Your task to perform on an android device: Open CNN.com Image 0: 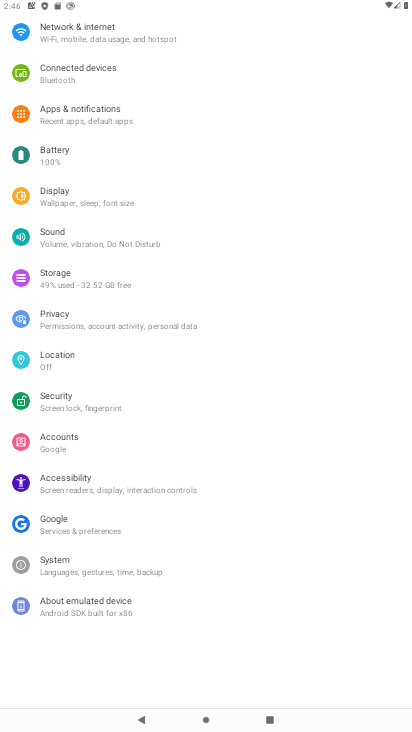
Step 0: drag from (294, 684) to (313, 341)
Your task to perform on an android device: Open CNN.com Image 1: 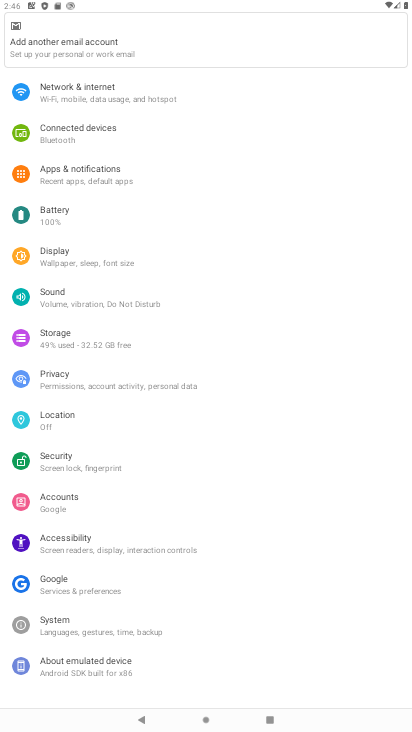
Step 1: press home button
Your task to perform on an android device: Open CNN.com Image 2: 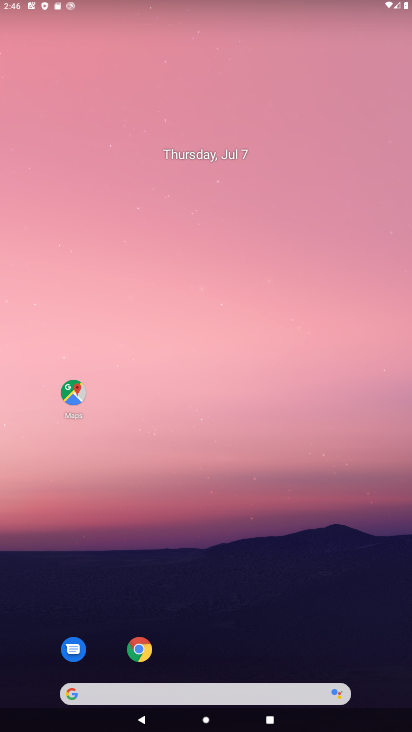
Step 2: drag from (332, 682) to (331, 290)
Your task to perform on an android device: Open CNN.com Image 3: 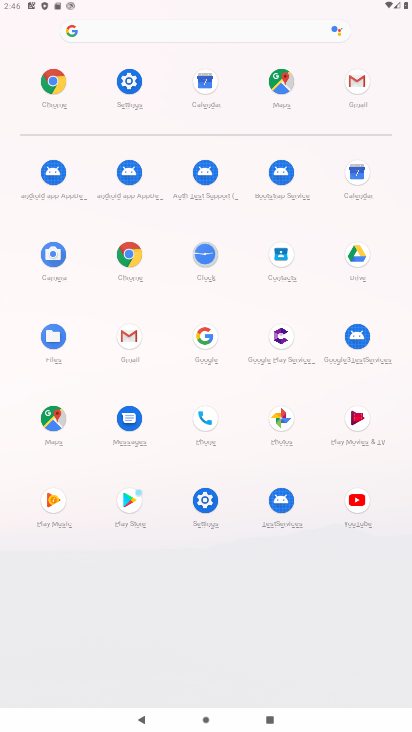
Step 3: click (111, 252)
Your task to perform on an android device: Open CNN.com Image 4: 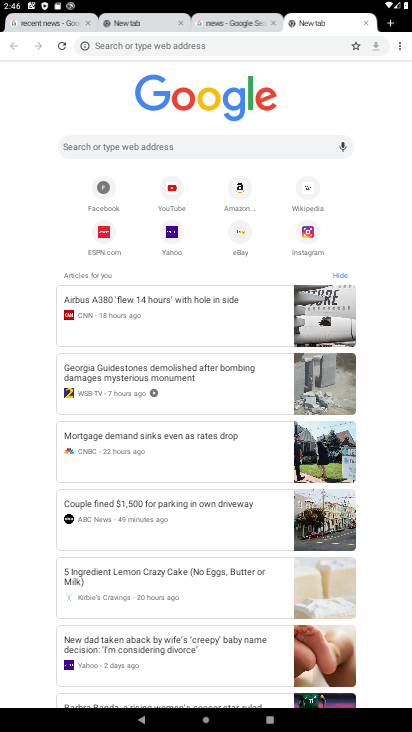
Step 4: click (237, 48)
Your task to perform on an android device: Open CNN.com Image 5: 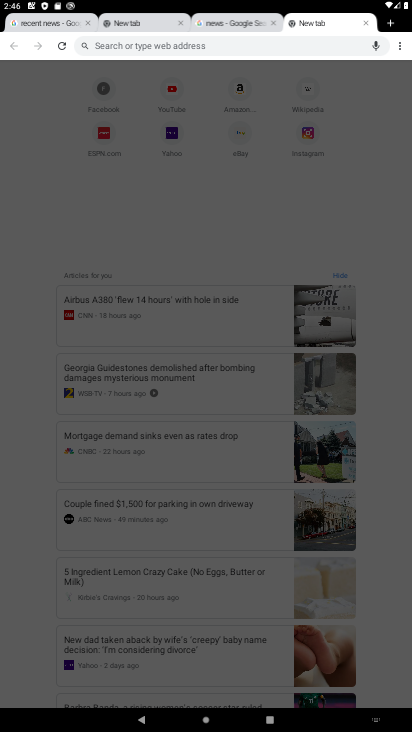
Step 5: type "cnn.com"
Your task to perform on an android device: Open CNN.com Image 6: 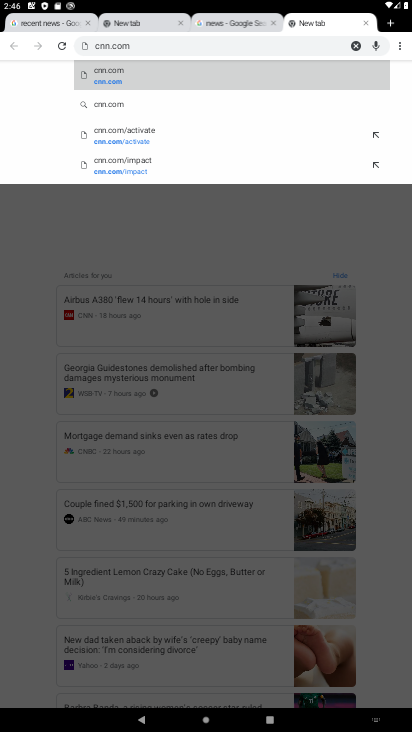
Step 6: click (160, 85)
Your task to perform on an android device: Open CNN.com Image 7: 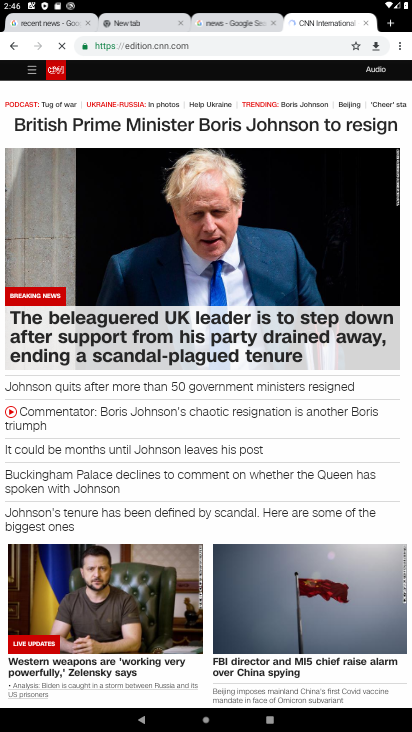
Step 7: task complete